Your task to perform on an android device: Go to Reddit.com Image 0: 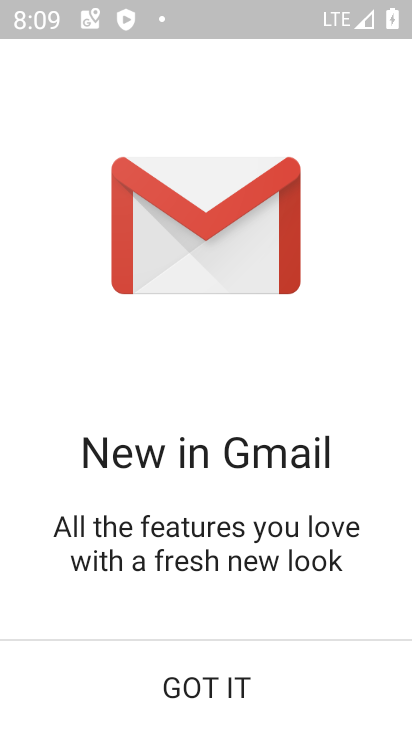
Step 0: press back button
Your task to perform on an android device: Go to Reddit.com Image 1: 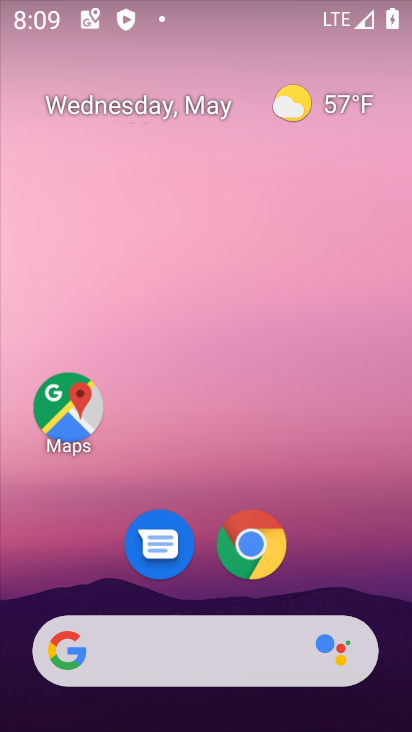
Step 1: drag from (316, 562) to (275, 26)
Your task to perform on an android device: Go to Reddit.com Image 2: 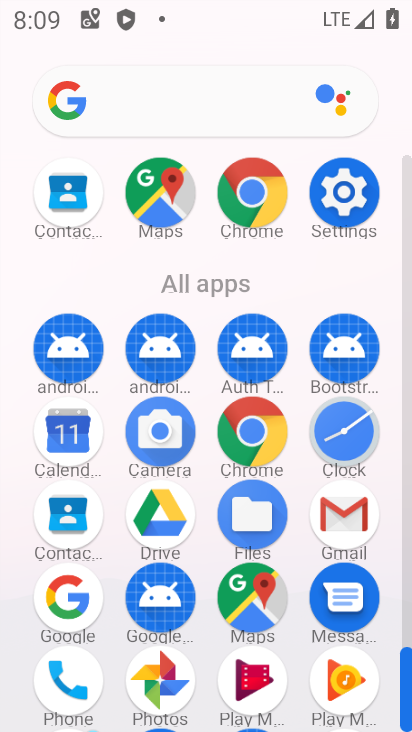
Step 2: click (257, 423)
Your task to perform on an android device: Go to Reddit.com Image 3: 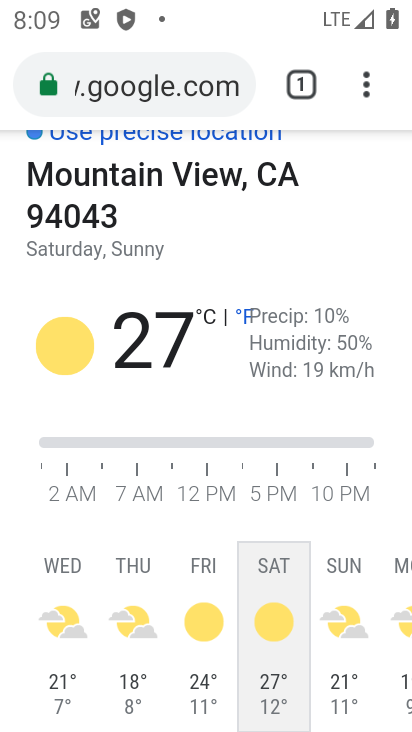
Step 3: click (141, 58)
Your task to perform on an android device: Go to Reddit.com Image 4: 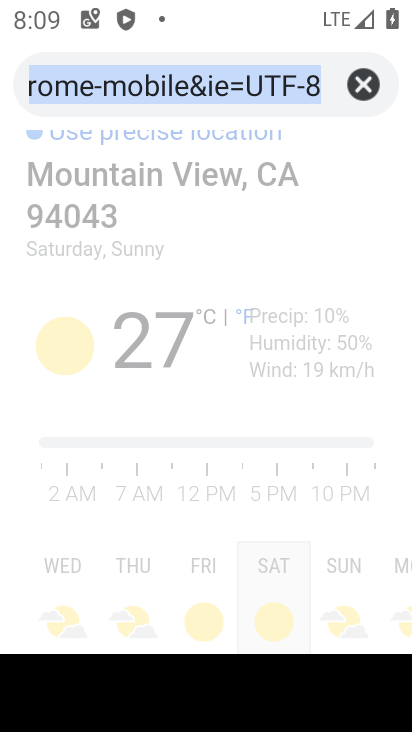
Step 4: click (363, 89)
Your task to perform on an android device: Go to Reddit.com Image 5: 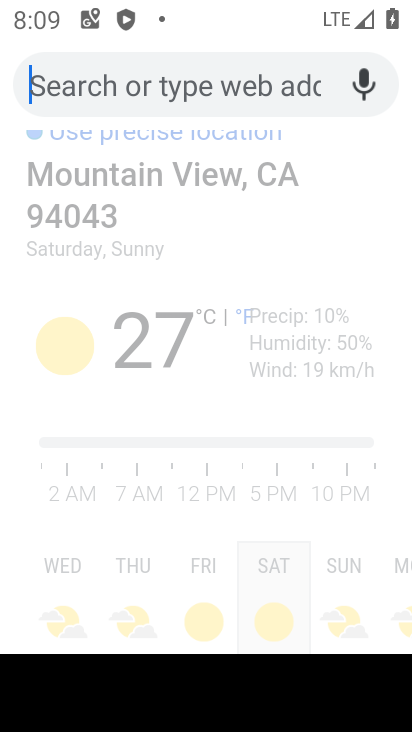
Step 5: type "Reddit.com"
Your task to perform on an android device: Go to Reddit.com Image 6: 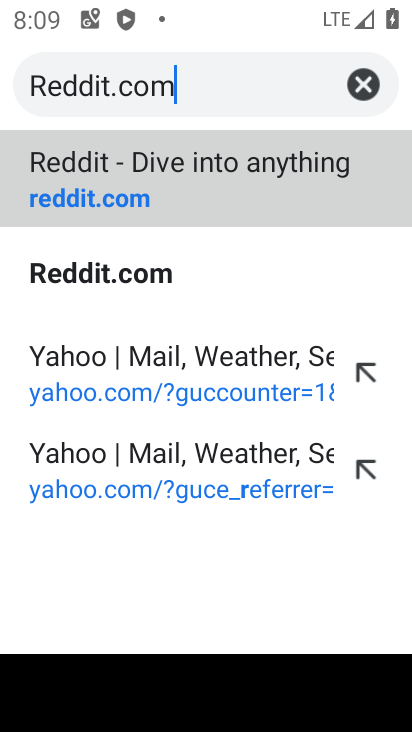
Step 6: type ""
Your task to perform on an android device: Go to Reddit.com Image 7: 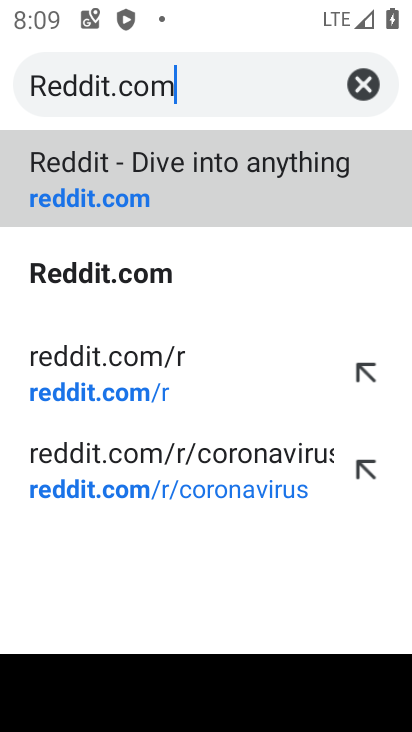
Step 7: click (144, 189)
Your task to perform on an android device: Go to Reddit.com Image 8: 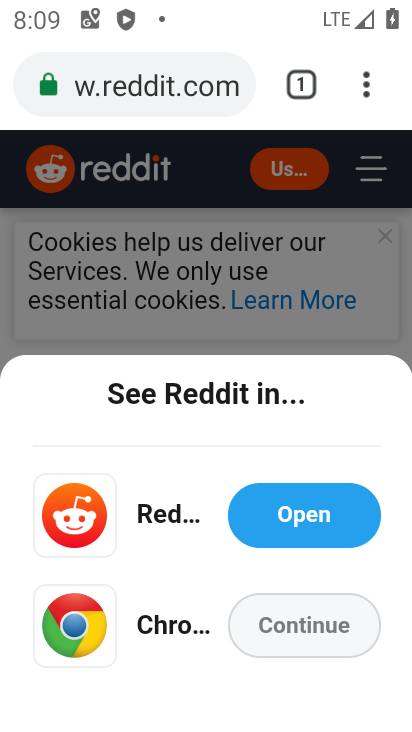
Step 8: task complete